Your task to perform on an android device: Open notification settings Image 0: 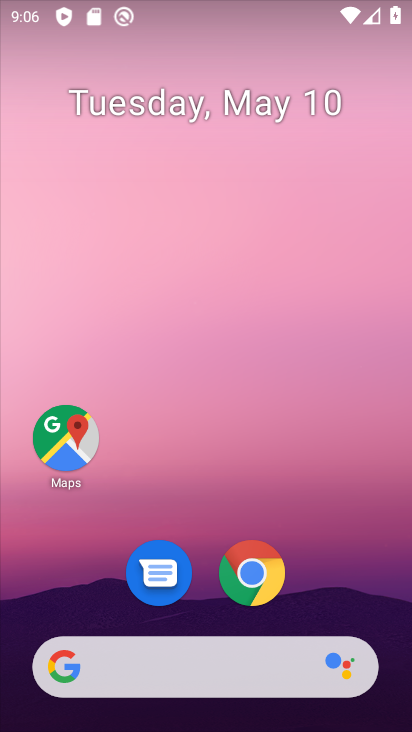
Step 0: click (137, 6)
Your task to perform on an android device: Open notification settings Image 1: 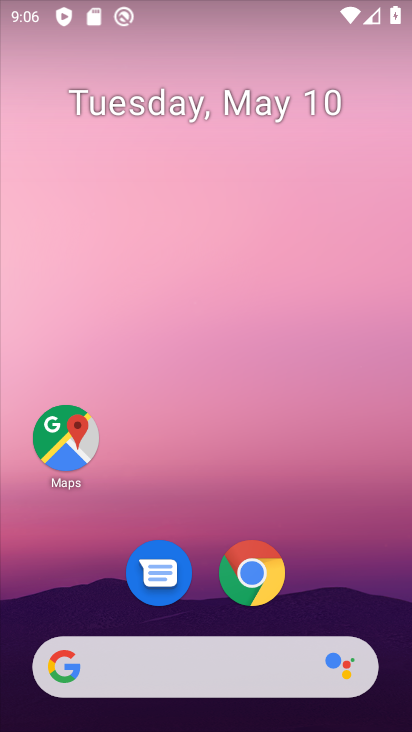
Step 1: drag from (349, 548) to (287, 141)
Your task to perform on an android device: Open notification settings Image 2: 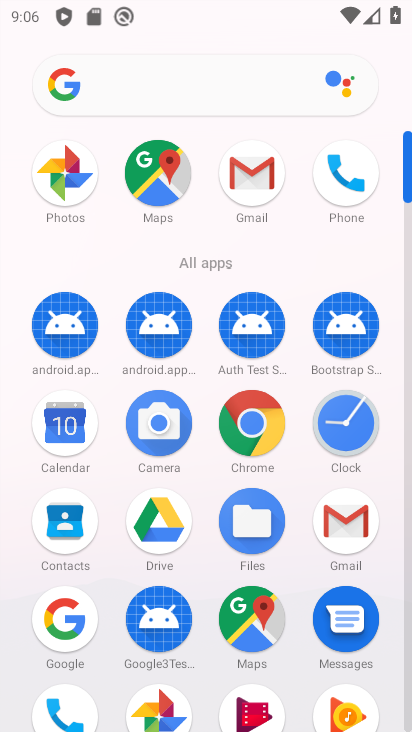
Step 2: click (151, 81)
Your task to perform on an android device: Open notification settings Image 3: 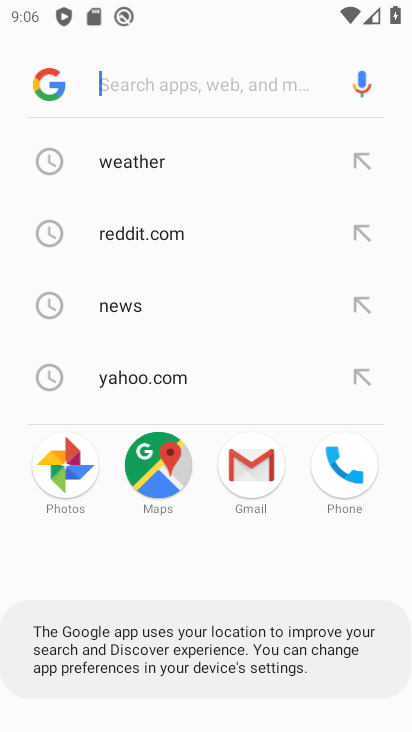
Step 3: drag from (201, 579) to (133, 328)
Your task to perform on an android device: Open notification settings Image 4: 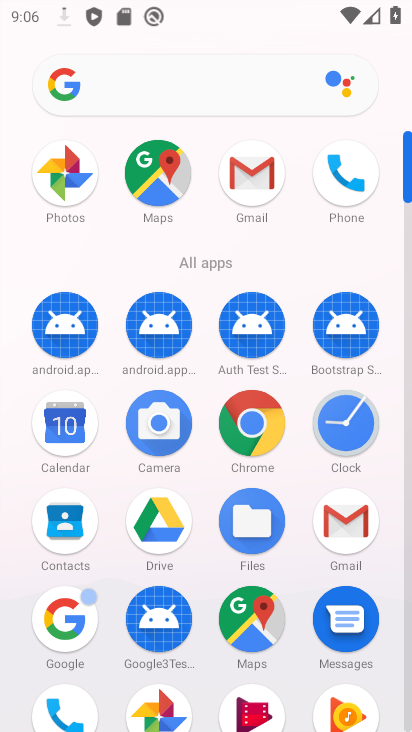
Step 4: press home button
Your task to perform on an android device: Open notification settings Image 5: 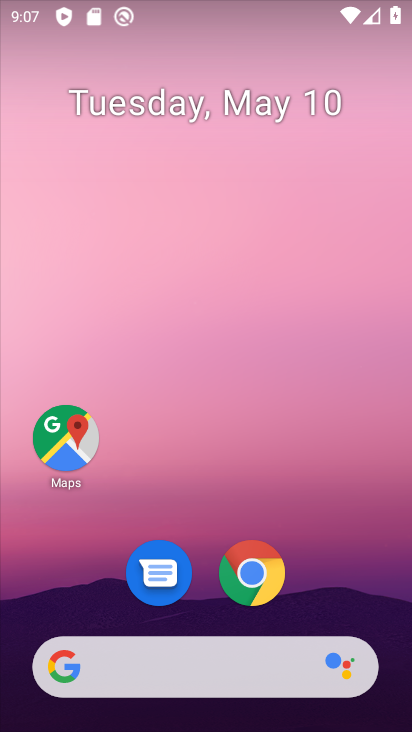
Step 5: drag from (316, 525) to (168, 73)
Your task to perform on an android device: Open notification settings Image 6: 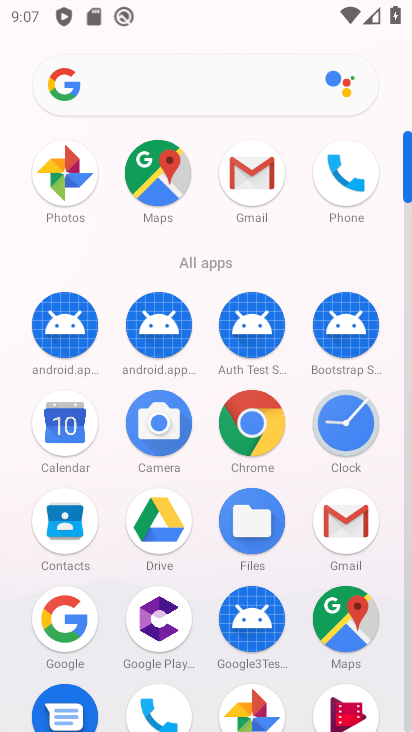
Step 6: drag from (212, 570) to (194, 233)
Your task to perform on an android device: Open notification settings Image 7: 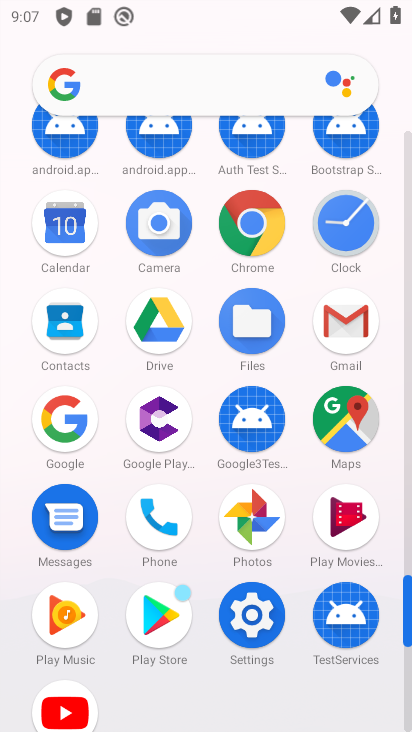
Step 7: click (248, 609)
Your task to perform on an android device: Open notification settings Image 8: 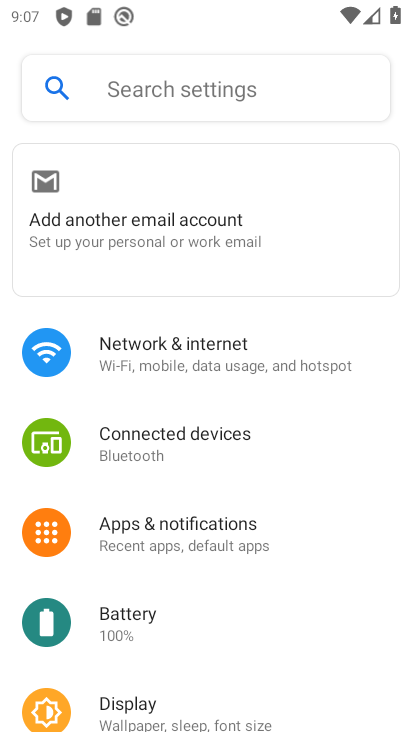
Step 8: click (190, 528)
Your task to perform on an android device: Open notification settings Image 9: 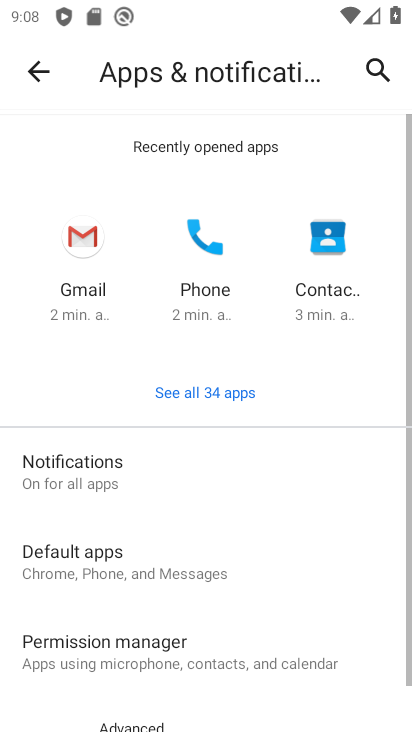
Step 9: task complete